Your task to perform on an android device: change text size in settings app Image 0: 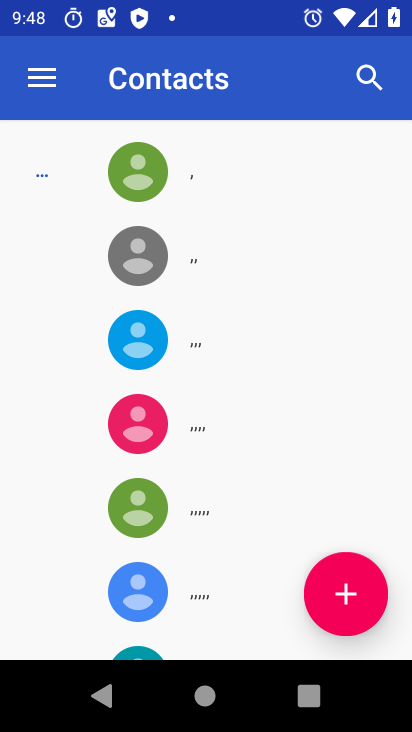
Step 0: press home button
Your task to perform on an android device: change text size in settings app Image 1: 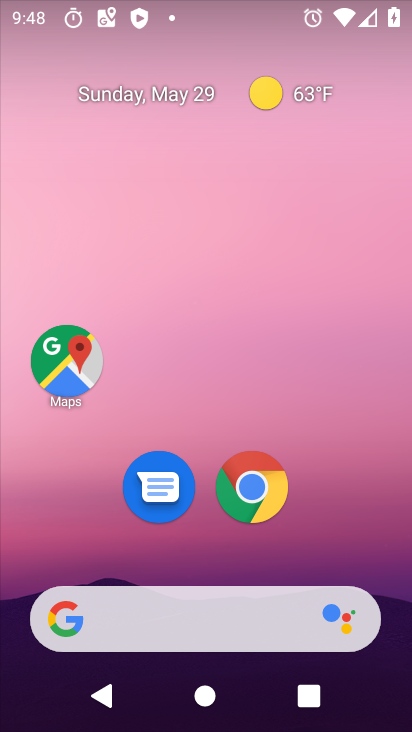
Step 1: drag from (136, 547) to (120, 101)
Your task to perform on an android device: change text size in settings app Image 2: 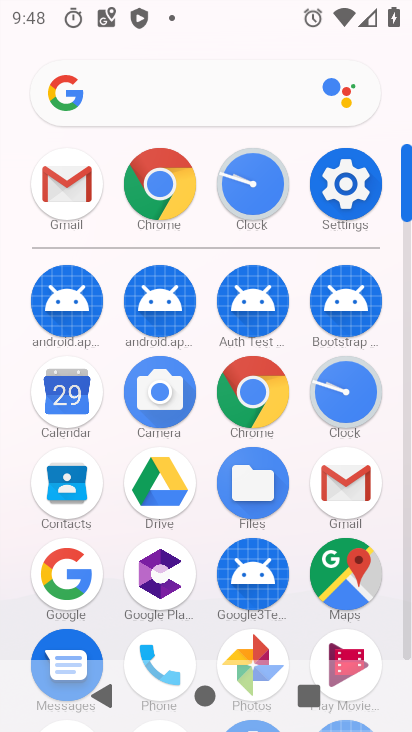
Step 2: click (353, 190)
Your task to perform on an android device: change text size in settings app Image 3: 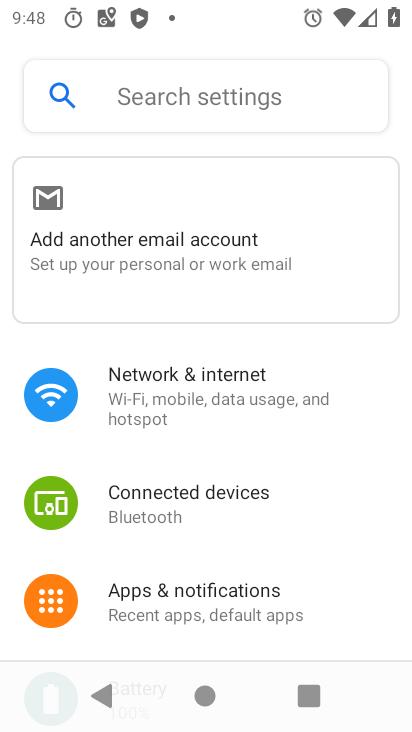
Step 3: drag from (129, 447) to (160, 232)
Your task to perform on an android device: change text size in settings app Image 4: 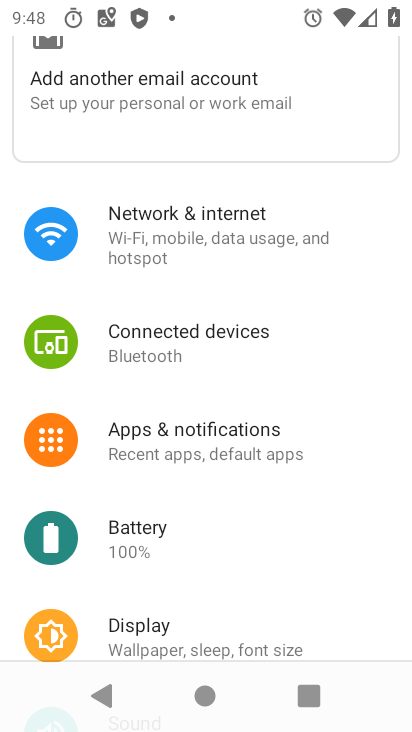
Step 4: drag from (133, 483) to (145, 270)
Your task to perform on an android device: change text size in settings app Image 5: 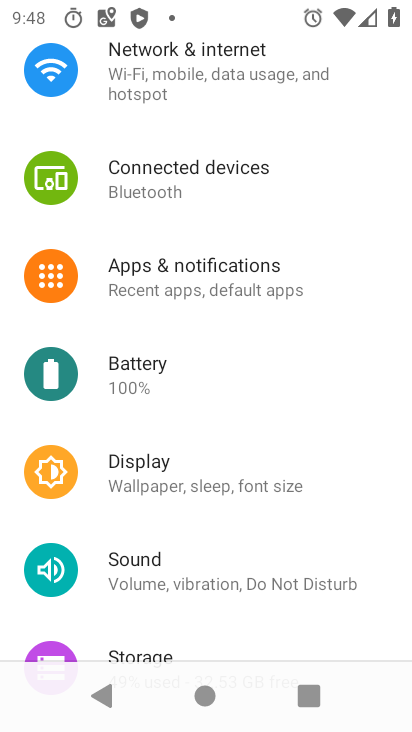
Step 5: click (190, 467)
Your task to perform on an android device: change text size in settings app Image 6: 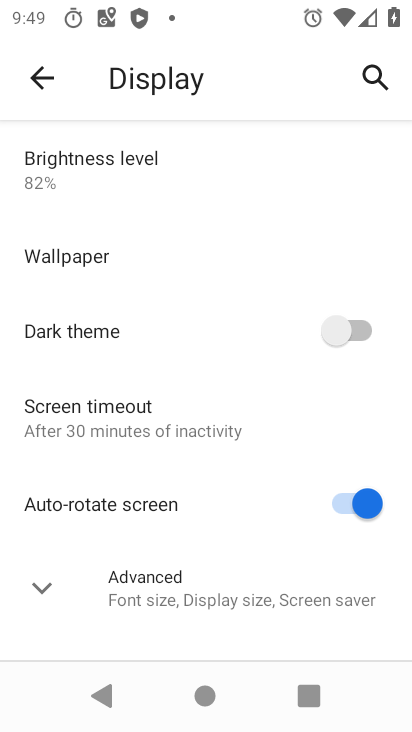
Step 6: click (188, 602)
Your task to perform on an android device: change text size in settings app Image 7: 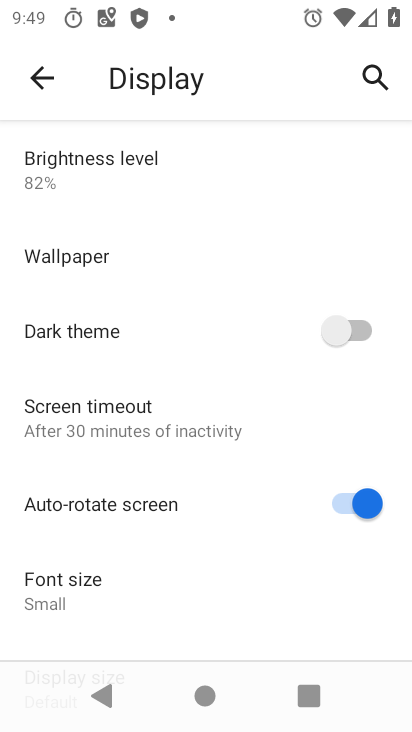
Step 7: drag from (189, 601) to (218, 0)
Your task to perform on an android device: change text size in settings app Image 8: 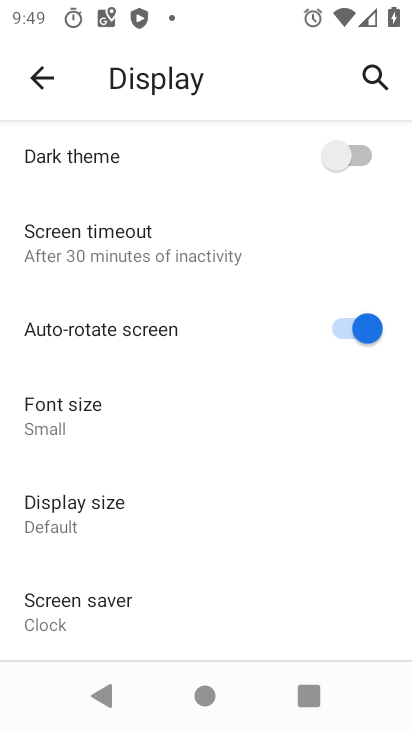
Step 8: click (89, 384)
Your task to perform on an android device: change text size in settings app Image 9: 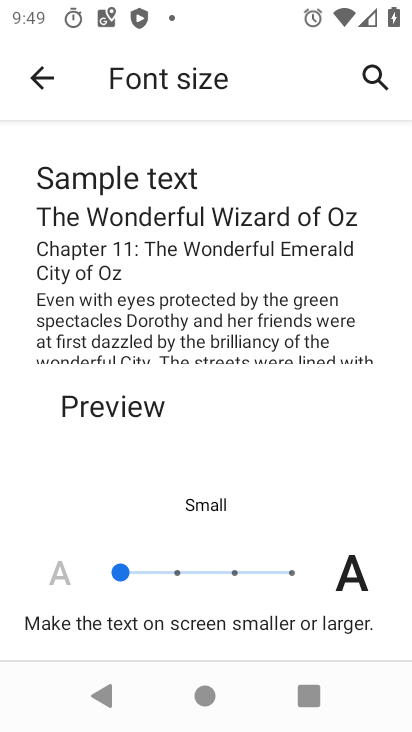
Step 9: click (166, 572)
Your task to perform on an android device: change text size in settings app Image 10: 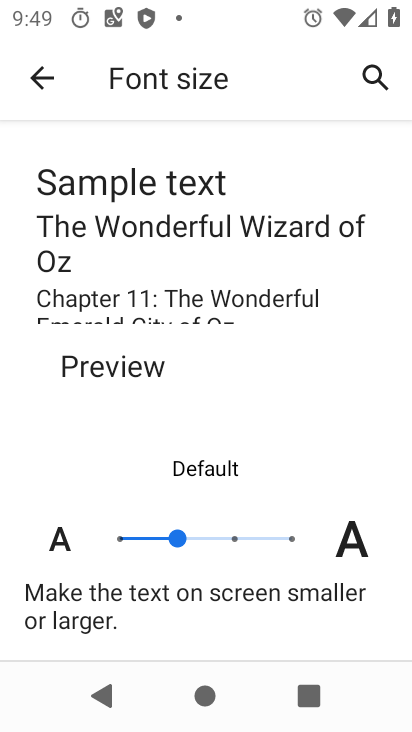
Step 10: task complete